Your task to perform on an android device: allow notifications from all sites in the chrome app Image 0: 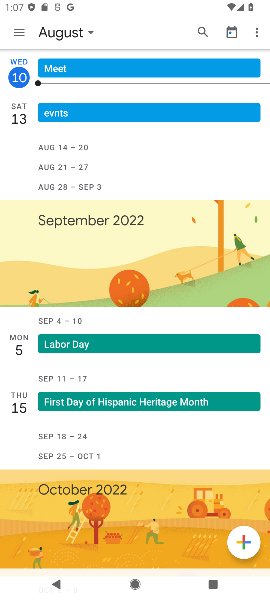
Step 0: task complete